Your task to perform on an android device: show emergency info Image 0: 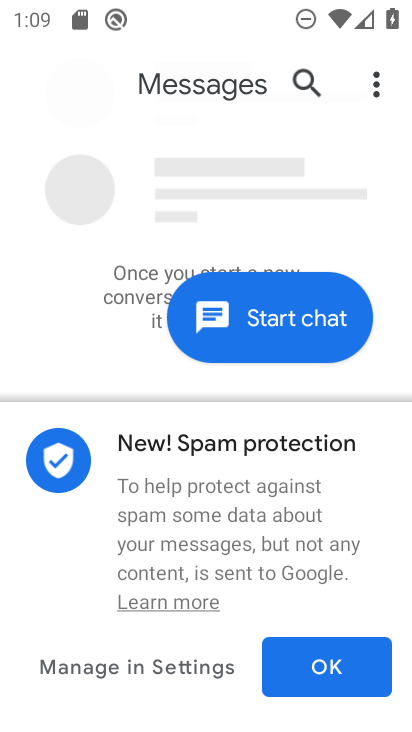
Step 0: press home button
Your task to perform on an android device: show emergency info Image 1: 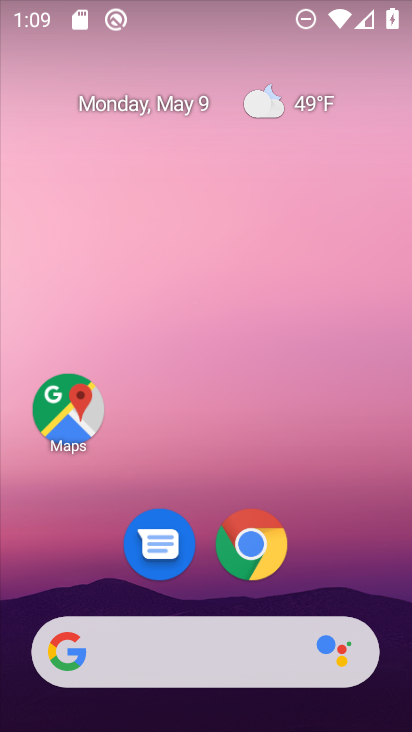
Step 1: drag from (334, 538) to (325, 116)
Your task to perform on an android device: show emergency info Image 2: 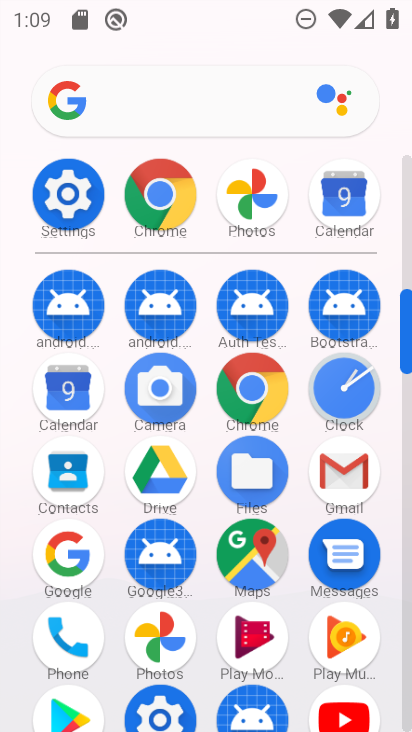
Step 2: click (52, 211)
Your task to perform on an android device: show emergency info Image 3: 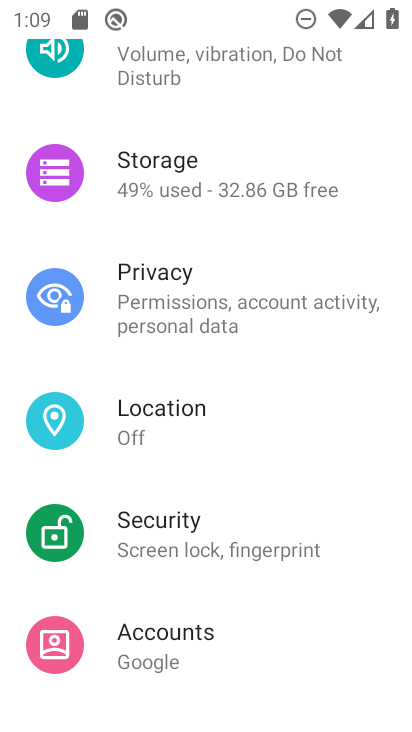
Step 3: drag from (257, 525) to (236, 166)
Your task to perform on an android device: show emergency info Image 4: 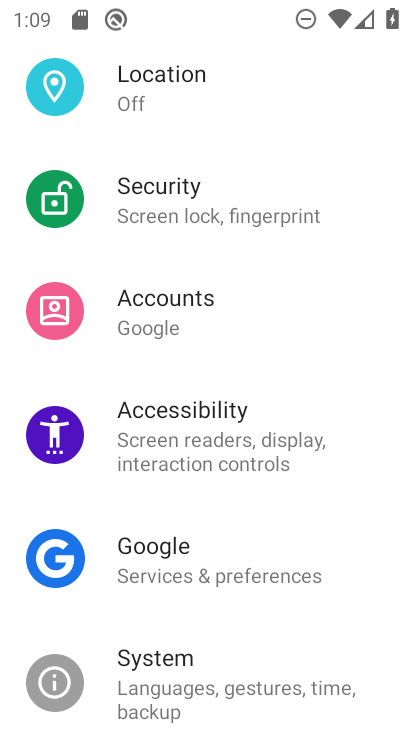
Step 4: drag from (252, 465) to (264, 111)
Your task to perform on an android device: show emergency info Image 5: 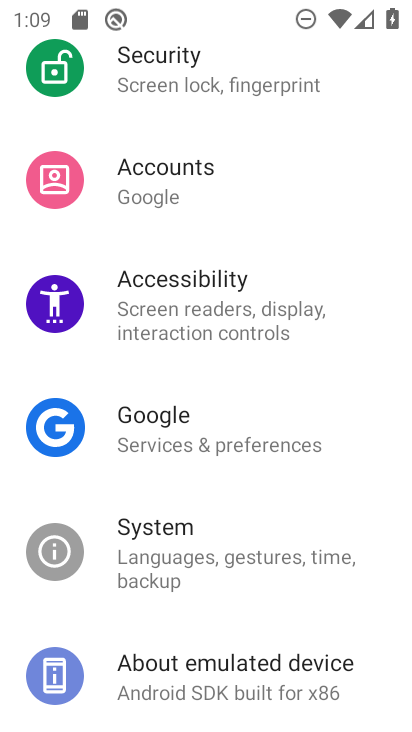
Step 5: click (231, 545)
Your task to perform on an android device: show emergency info Image 6: 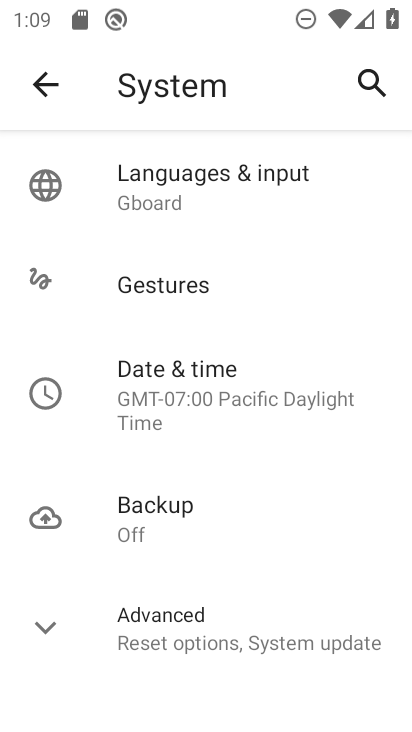
Step 6: drag from (220, 409) to (247, 209)
Your task to perform on an android device: show emergency info Image 7: 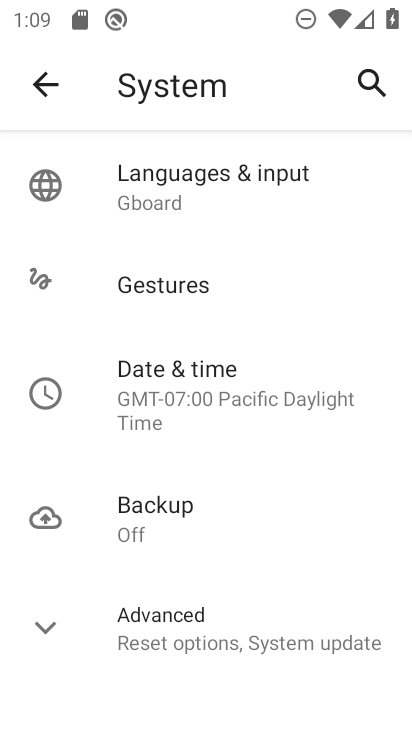
Step 7: click (155, 648)
Your task to perform on an android device: show emergency info Image 8: 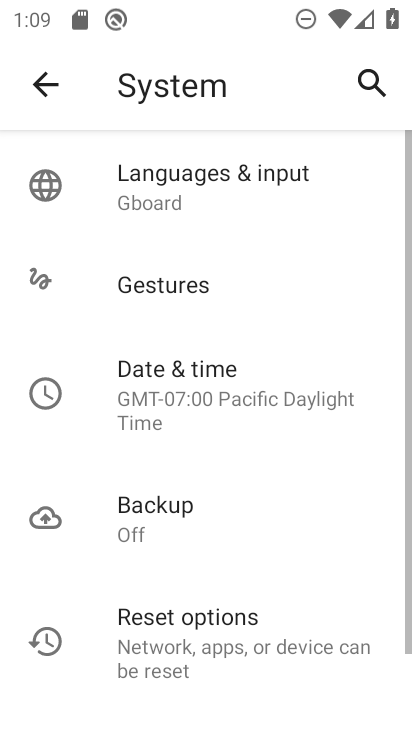
Step 8: drag from (154, 637) to (246, 241)
Your task to perform on an android device: show emergency info Image 9: 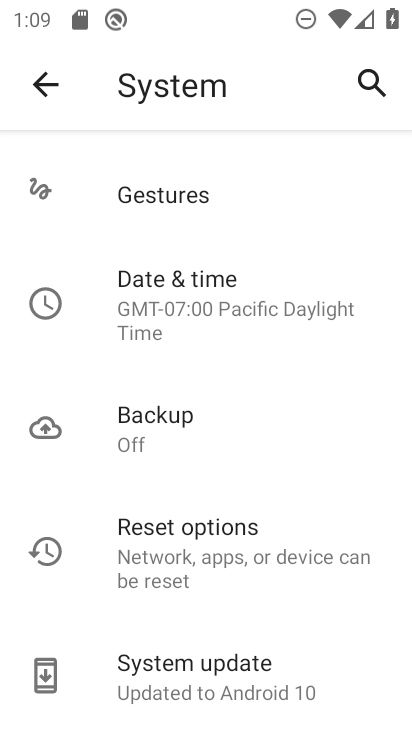
Step 9: click (28, 95)
Your task to perform on an android device: show emergency info Image 10: 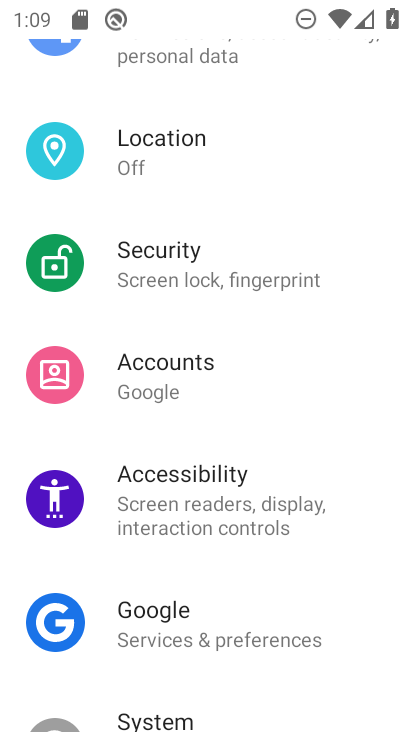
Step 10: drag from (179, 656) to (220, 178)
Your task to perform on an android device: show emergency info Image 11: 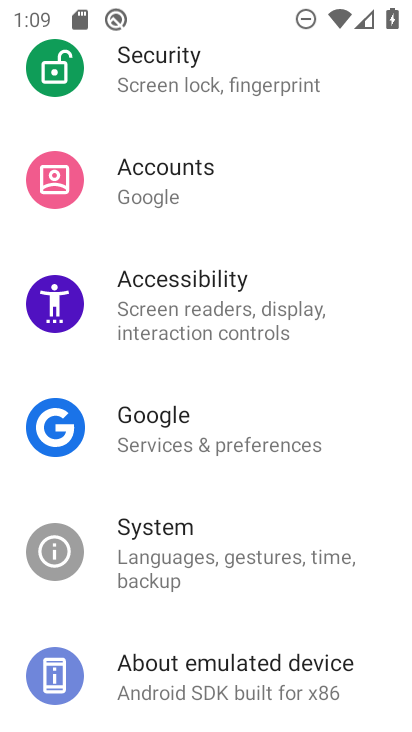
Step 11: drag from (216, 571) to (305, 293)
Your task to perform on an android device: show emergency info Image 12: 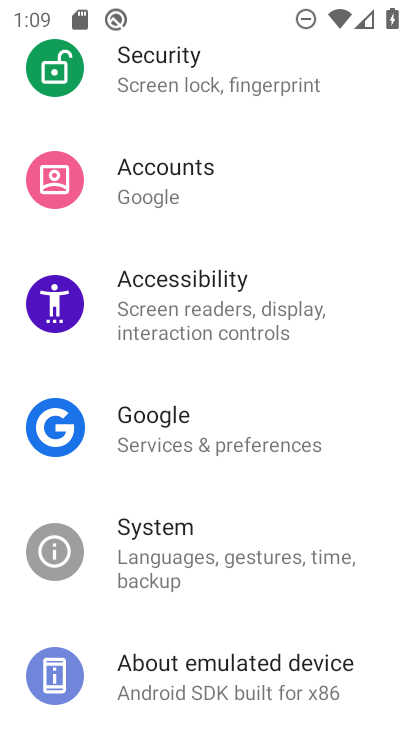
Step 12: click (232, 681)
Your task to perform on an android device: show emergency info Image 13: 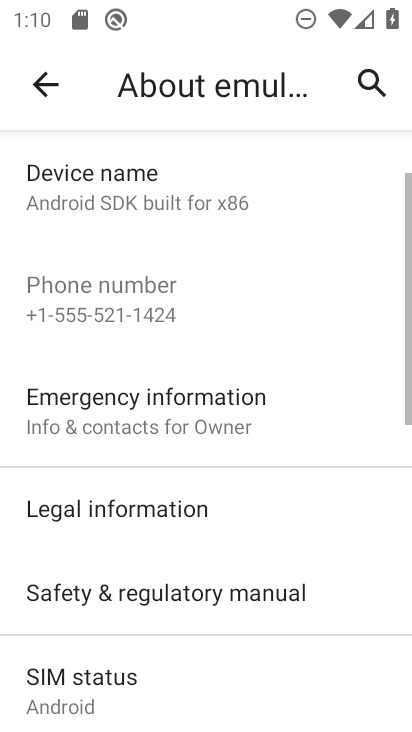
Step 13: click (155, 427)
Your task to perform on an android device: show emergency info Image 14: 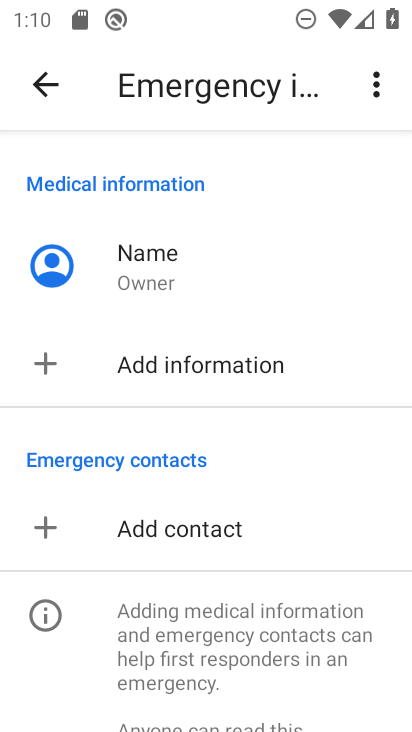
Step 14: task complete